Your task to perform on an android device: Search for Italian restaurants on Maps Image 0: 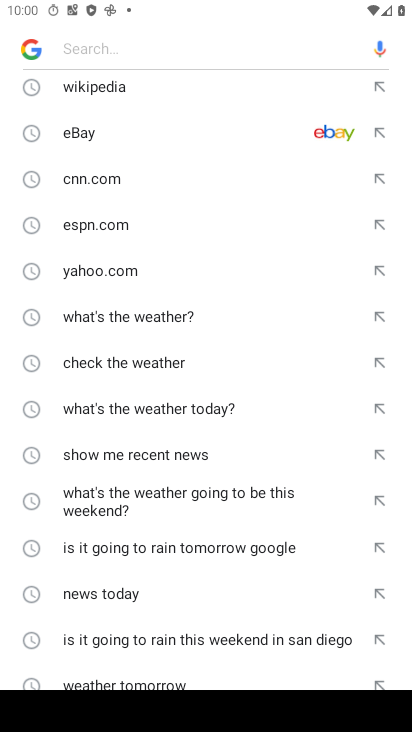
Step 0: press home button
Your task to perform on an android device: Search for Italian restaurants on Maps Image 1: 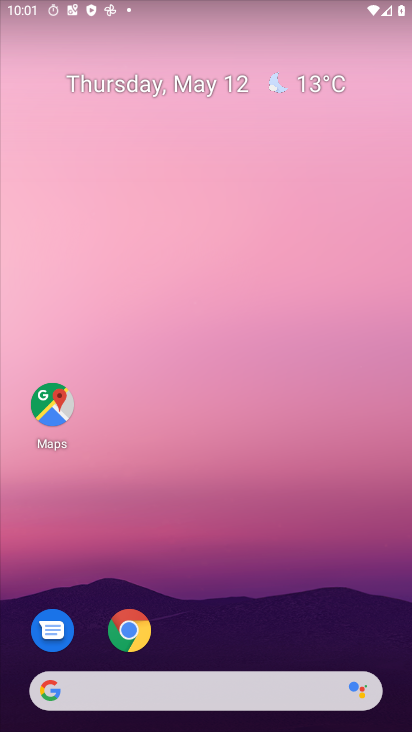
Step 1: click (53, 396)
Your task to perform on an android device: Search for Italian restaurants on Maps Image 2: 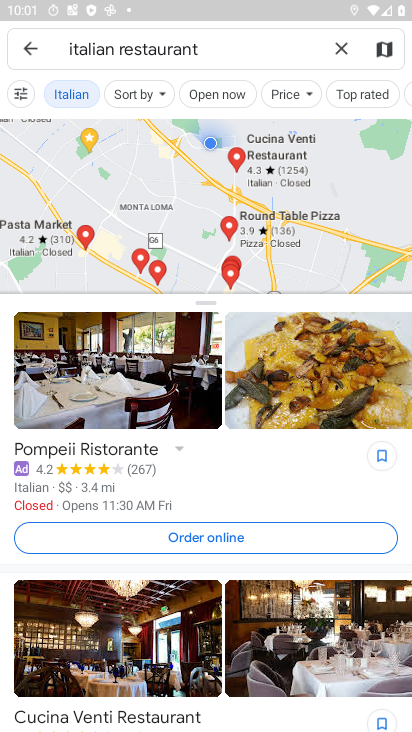
Step 2: task complete